Your task to perform on an android device: uninstall "Facebook" Image 0: 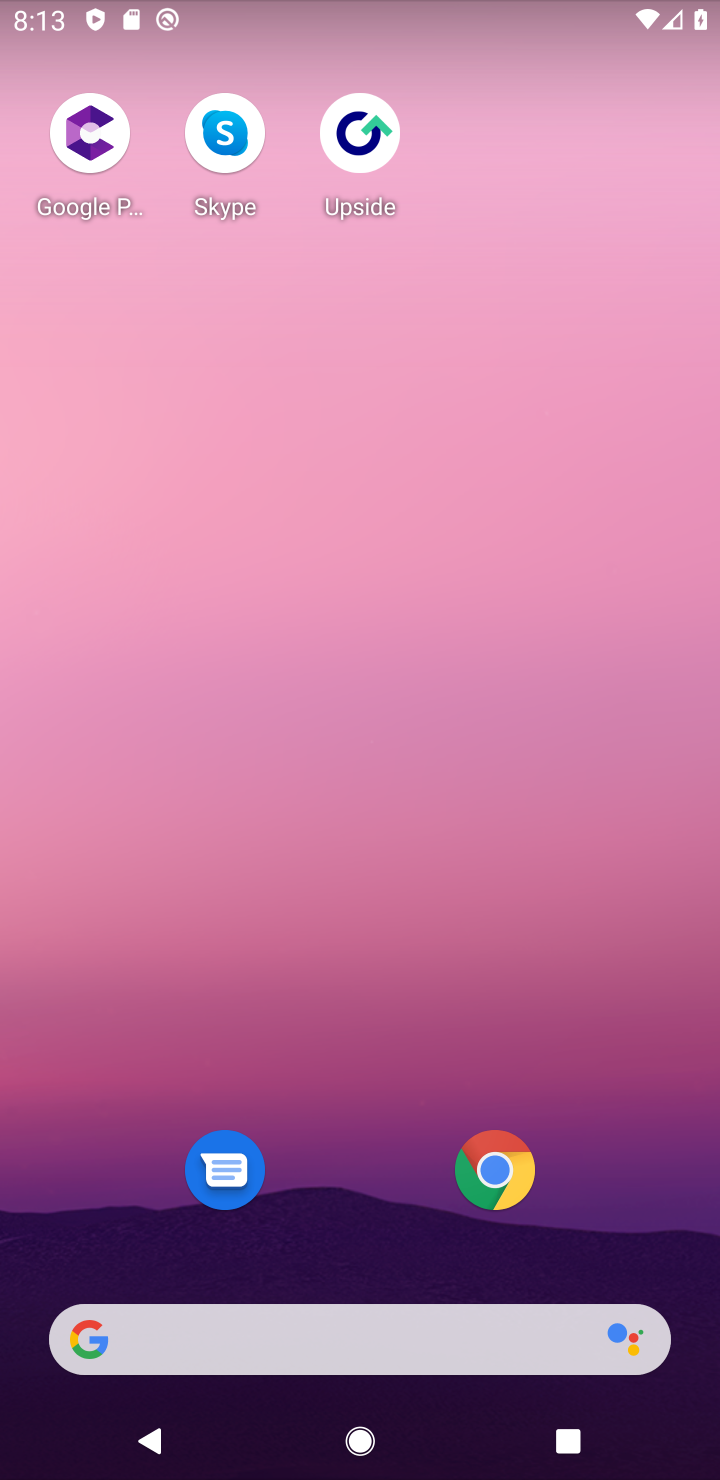
Step 0: drag from (457, 755) to (521, 77)
Your task to perform on an android device: uninstall "Facebook" Image 1: 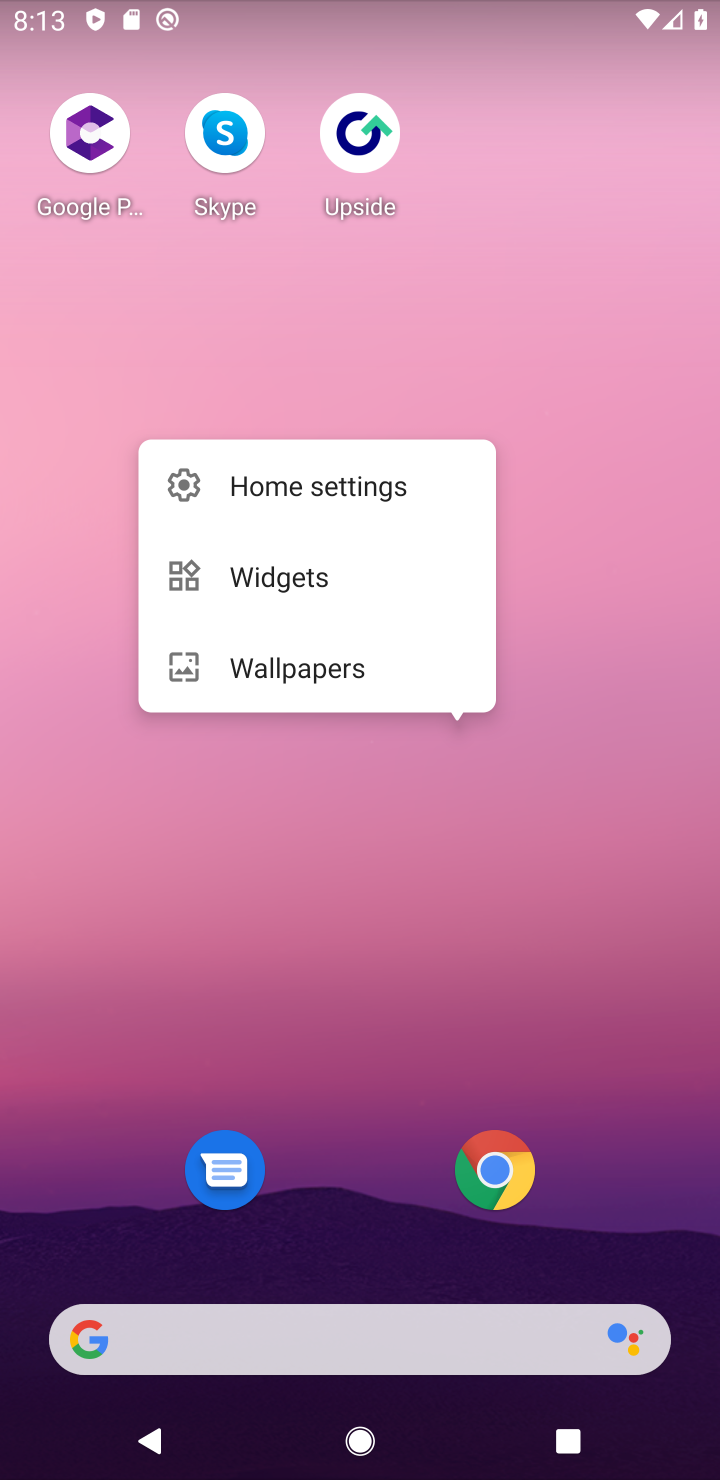
Step 1: click (297, 1007)
Your task to perform on an android device: uninstall "Facebook" Image 2: 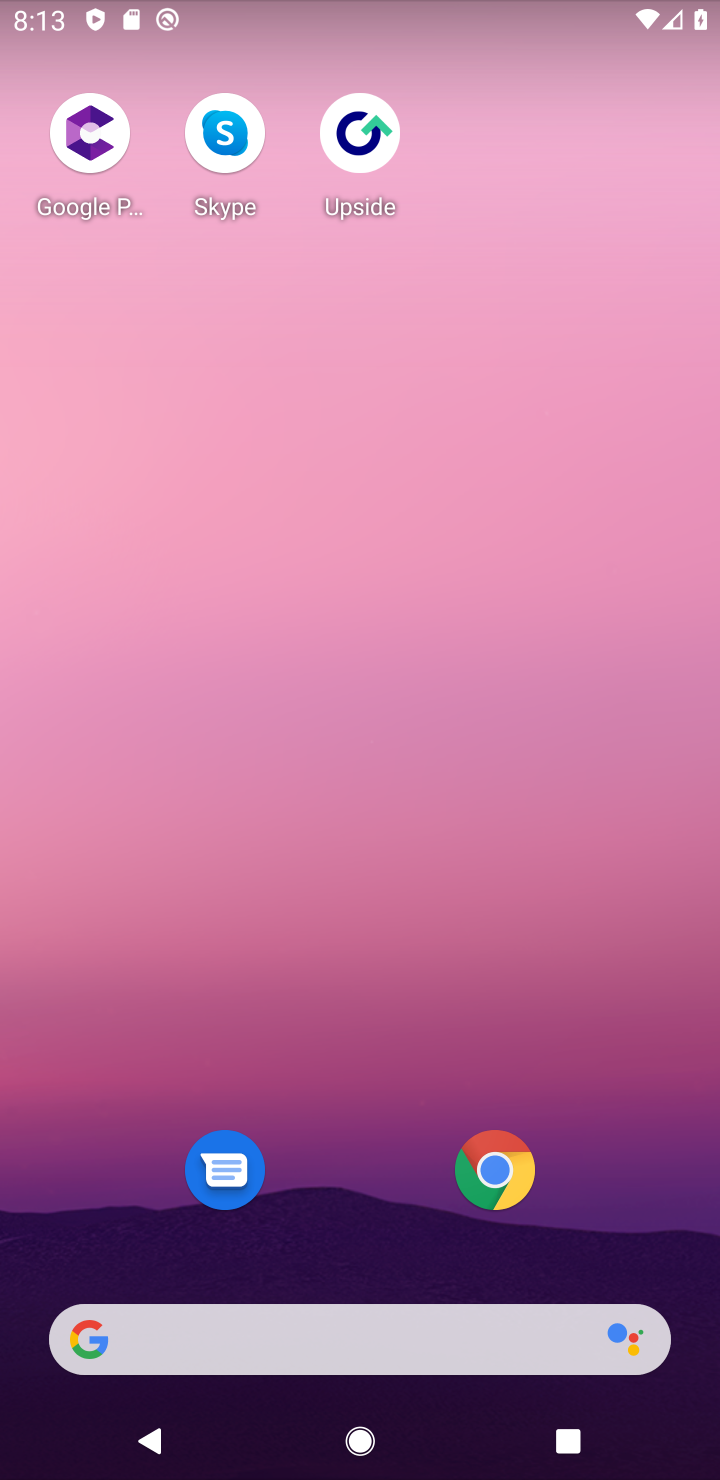
Step 2: drag from (430, 810) to (610, 1)
Your task to perform on an android device: uninstall "Facebook" Image 3: 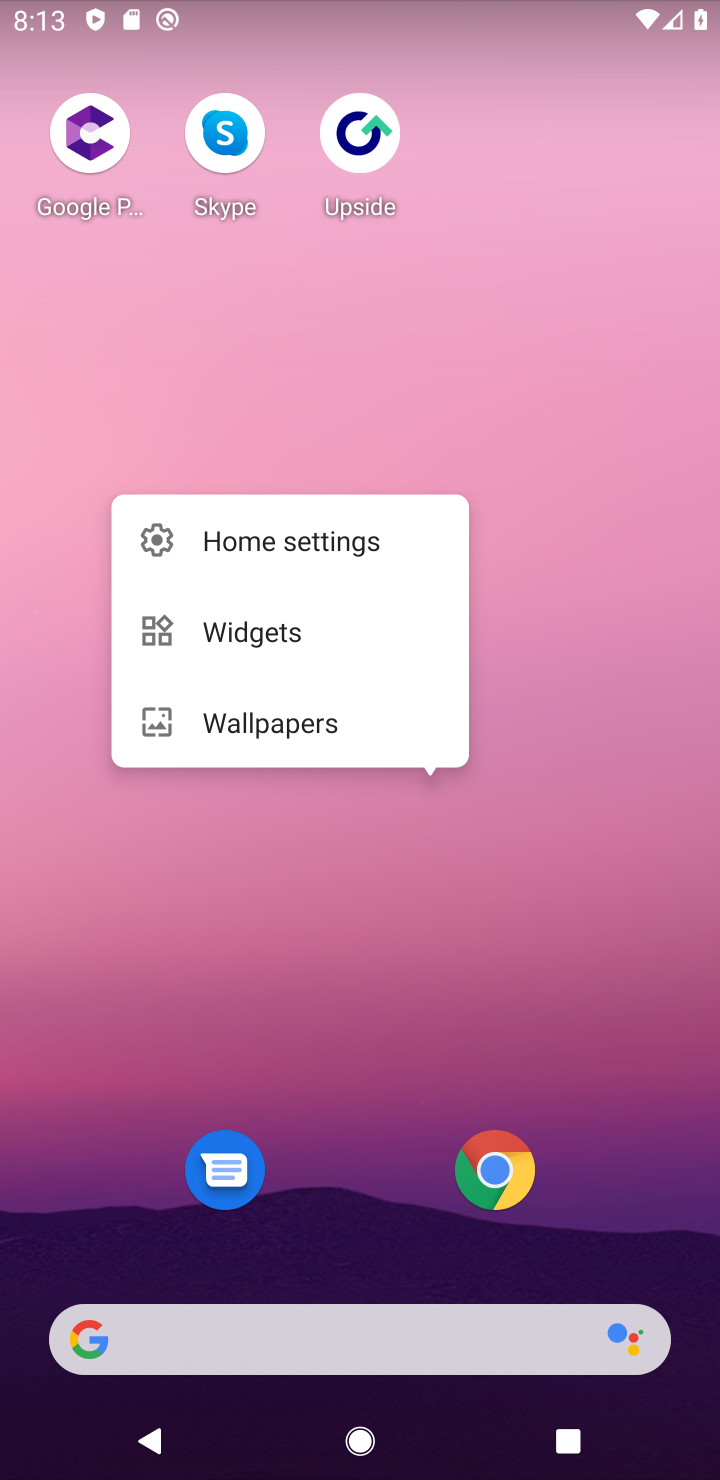
Step 3: click (421, 963)
Your task to perform on an android device: uninstall "Facebook" Image 4: 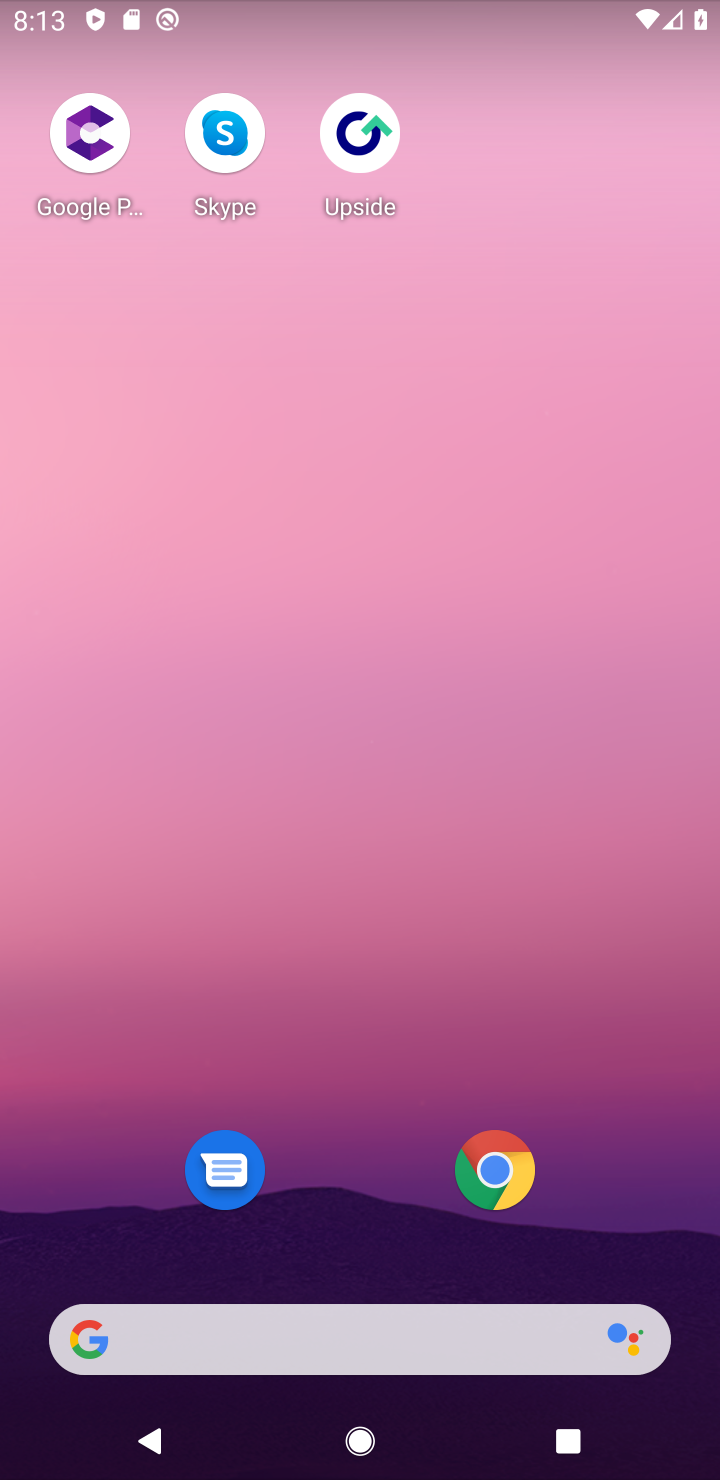
Step 4: drag from (492, 733) to (427, 49)
Your task to perform on an android device: uninstall "Facebook" Image 5: 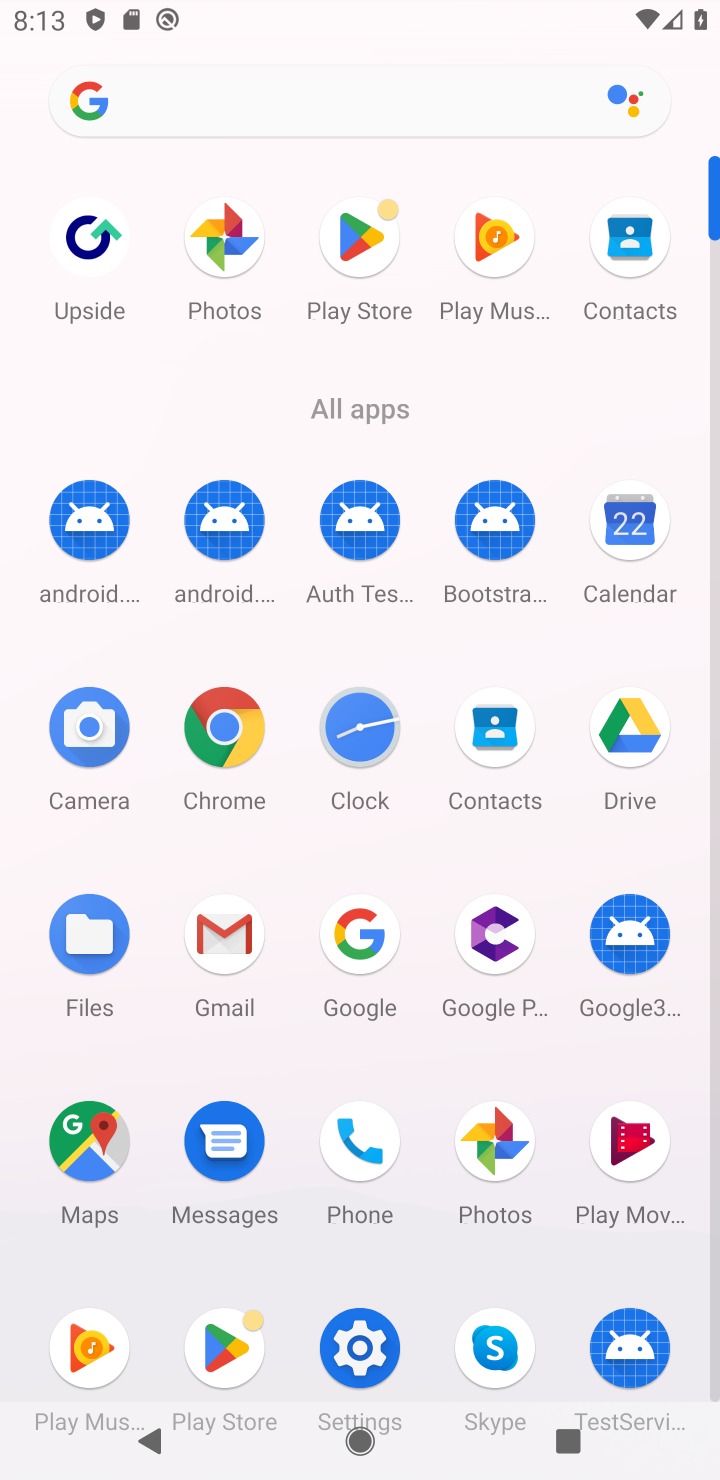
Step 5: click (391, 237)
Your task to perform on an android device: uninstall "Facebook" Image 6: 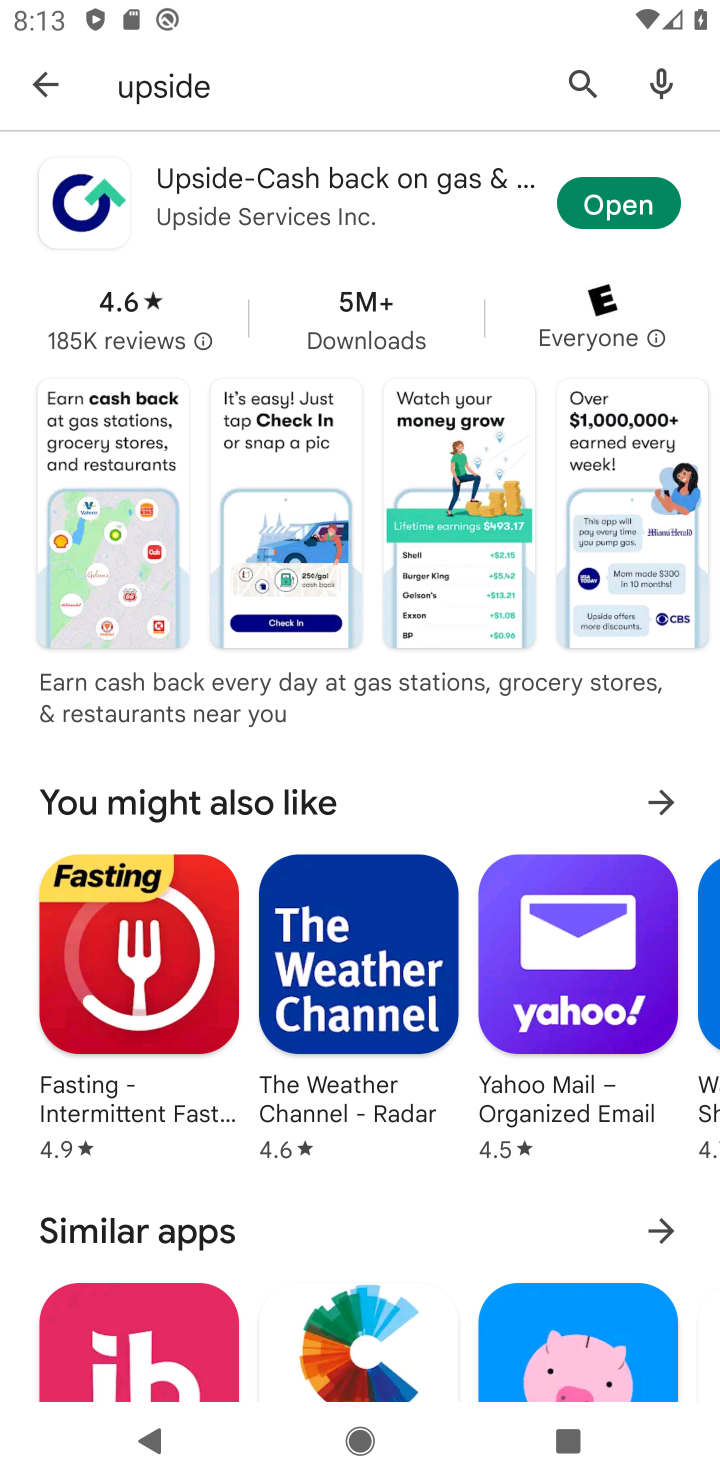
Step 6: click (579, 70)
Your task to perform on an android device: uninstall "Facebook" Image 7: 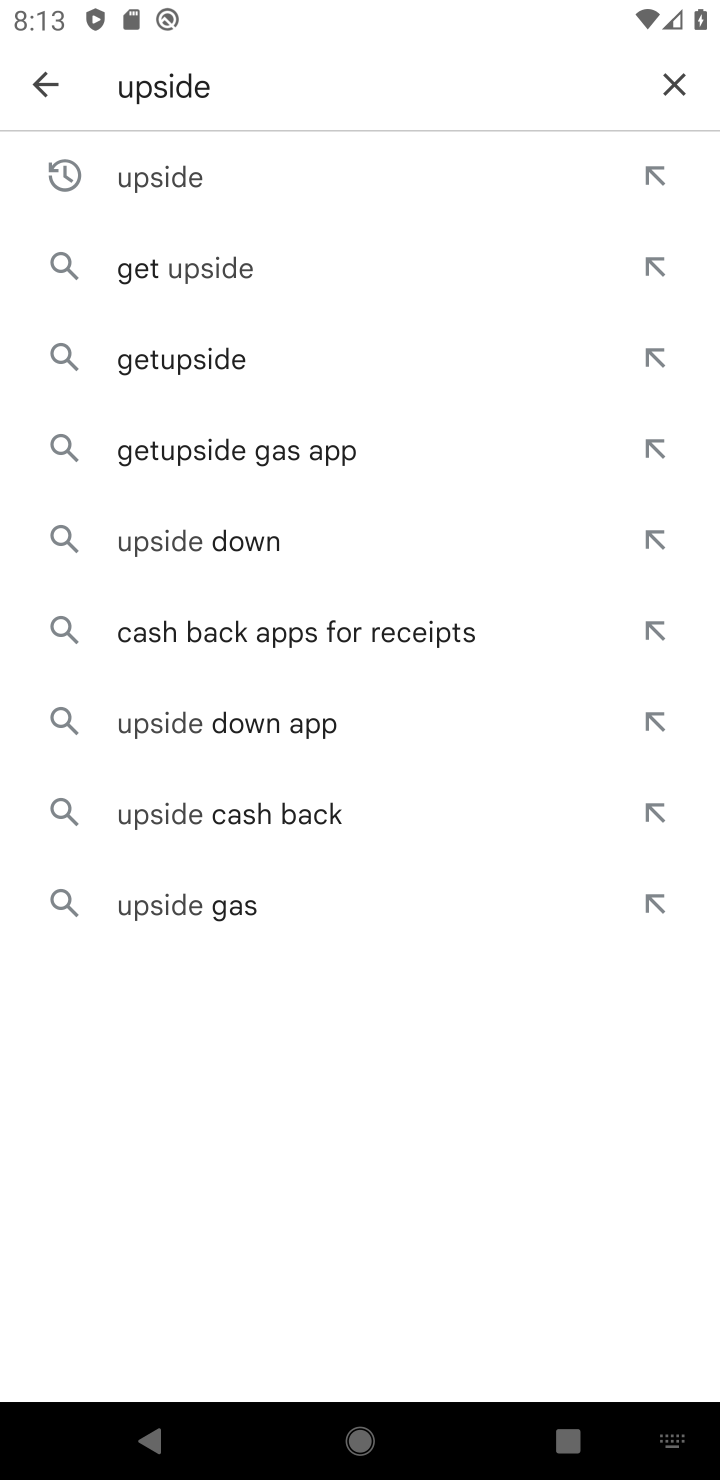
Step 7: click (675, 70)
Your task to perform on an android device: uninstall "Facebook" Image 8: 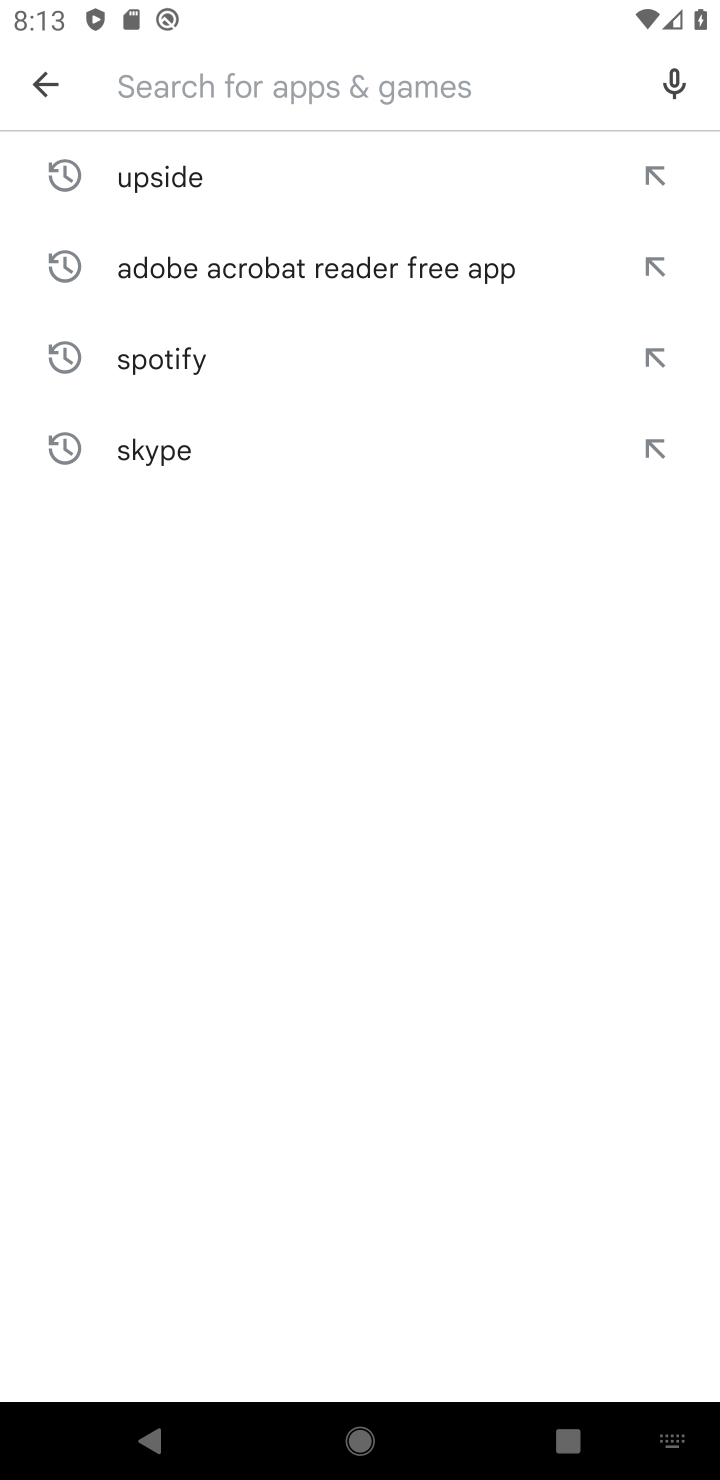
Step 8: click (286, 95)
Your task to perform on an android device: uninstall "Facebook" Image 9: 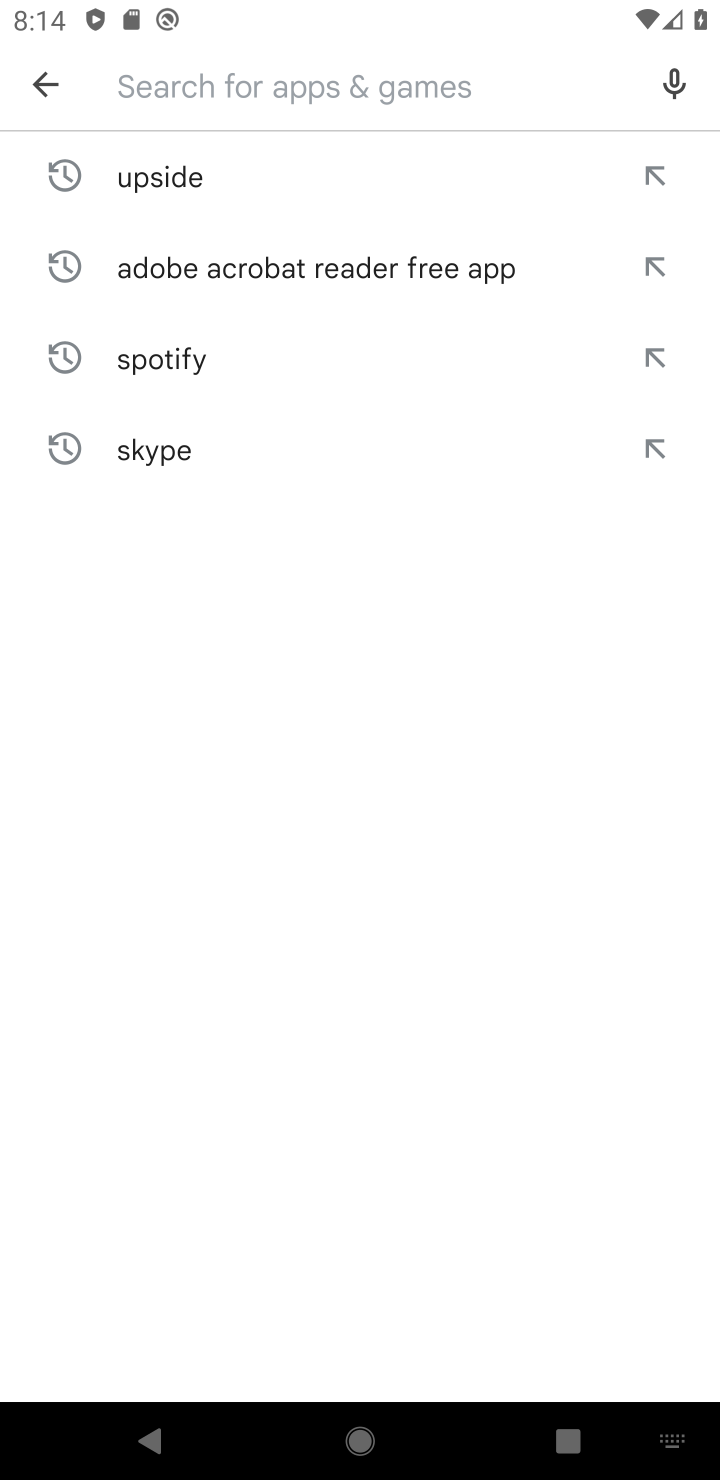
Step 9: type "facebook"
Your task to perform on an android device: uninstall "Facebook" Image 10: 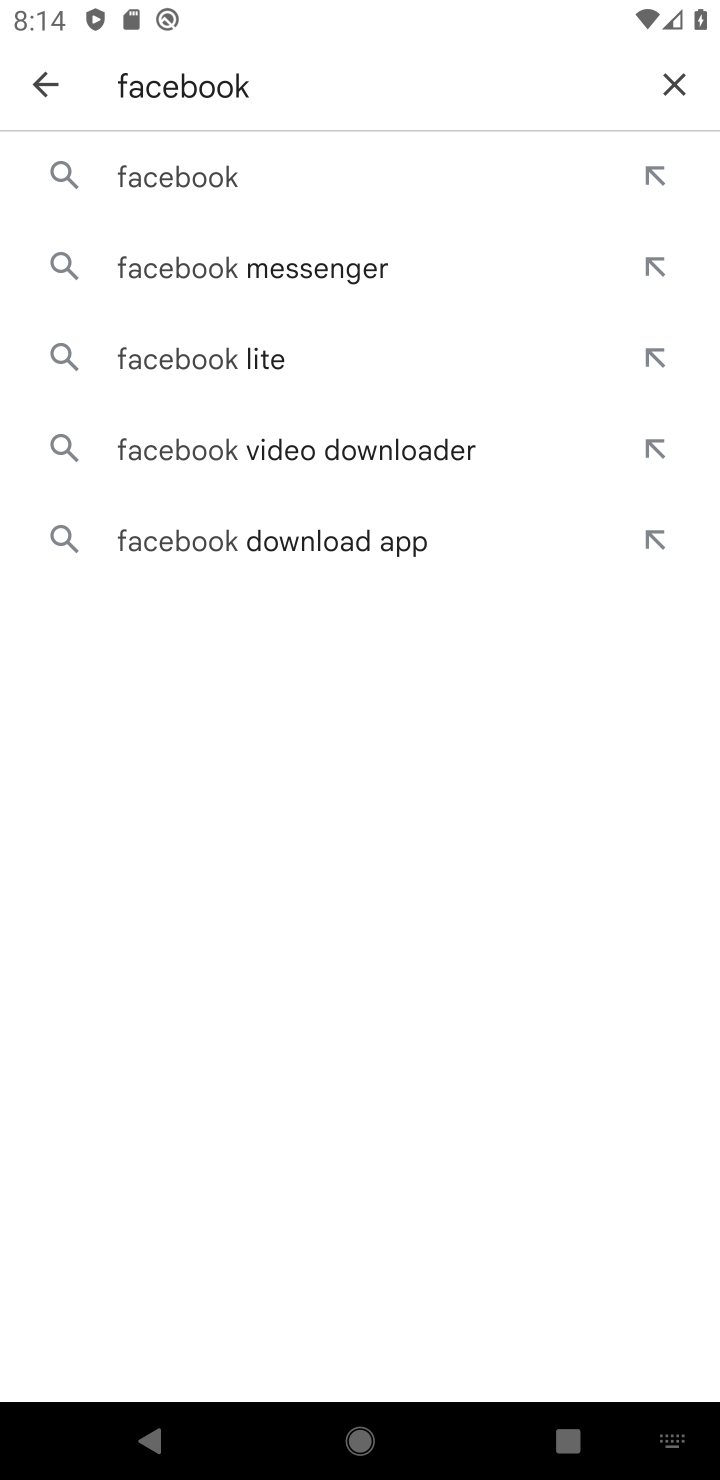
Step 10: click (240, 161)
Your task to perform on an android device: uninstall "Facebook" Image 11: 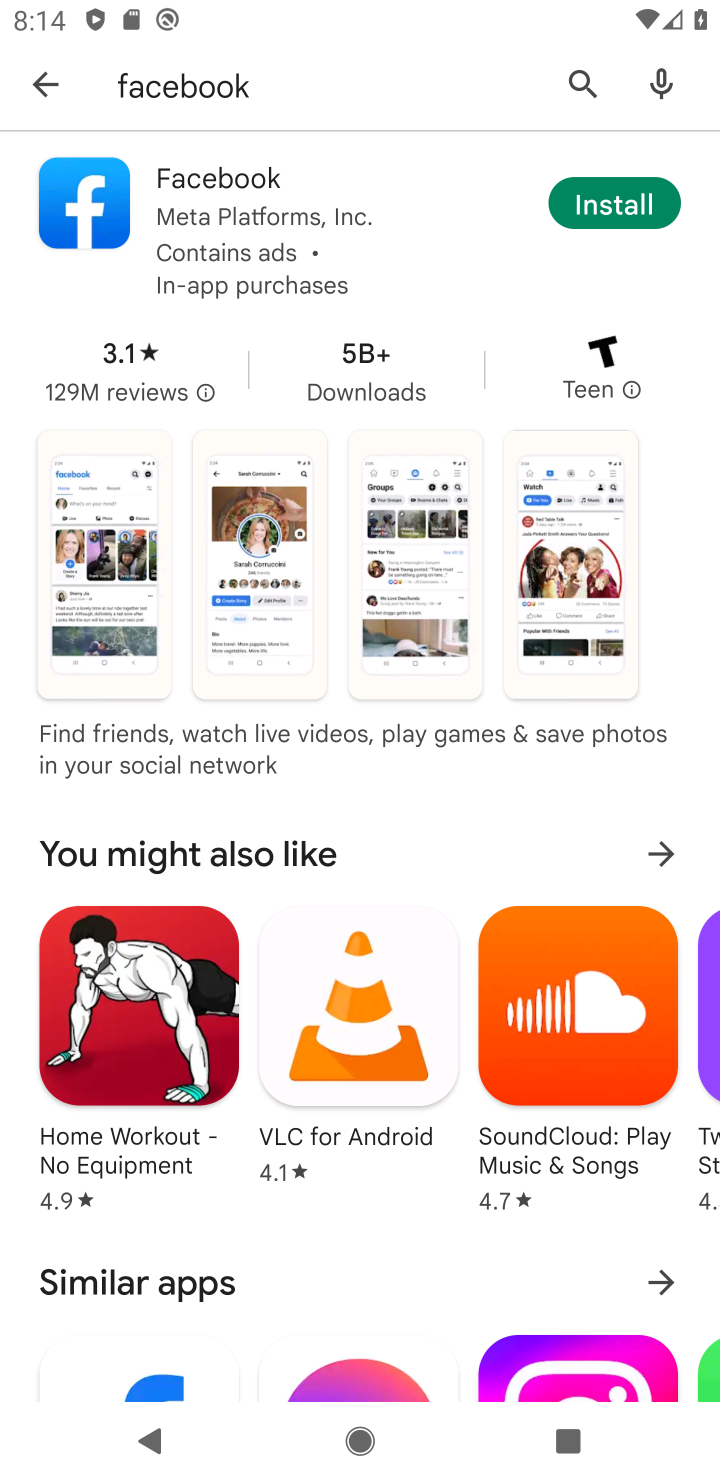
Step 11: click (241, 203)
Your task to perform on an android device: uninstall "Facebook" Image 12: 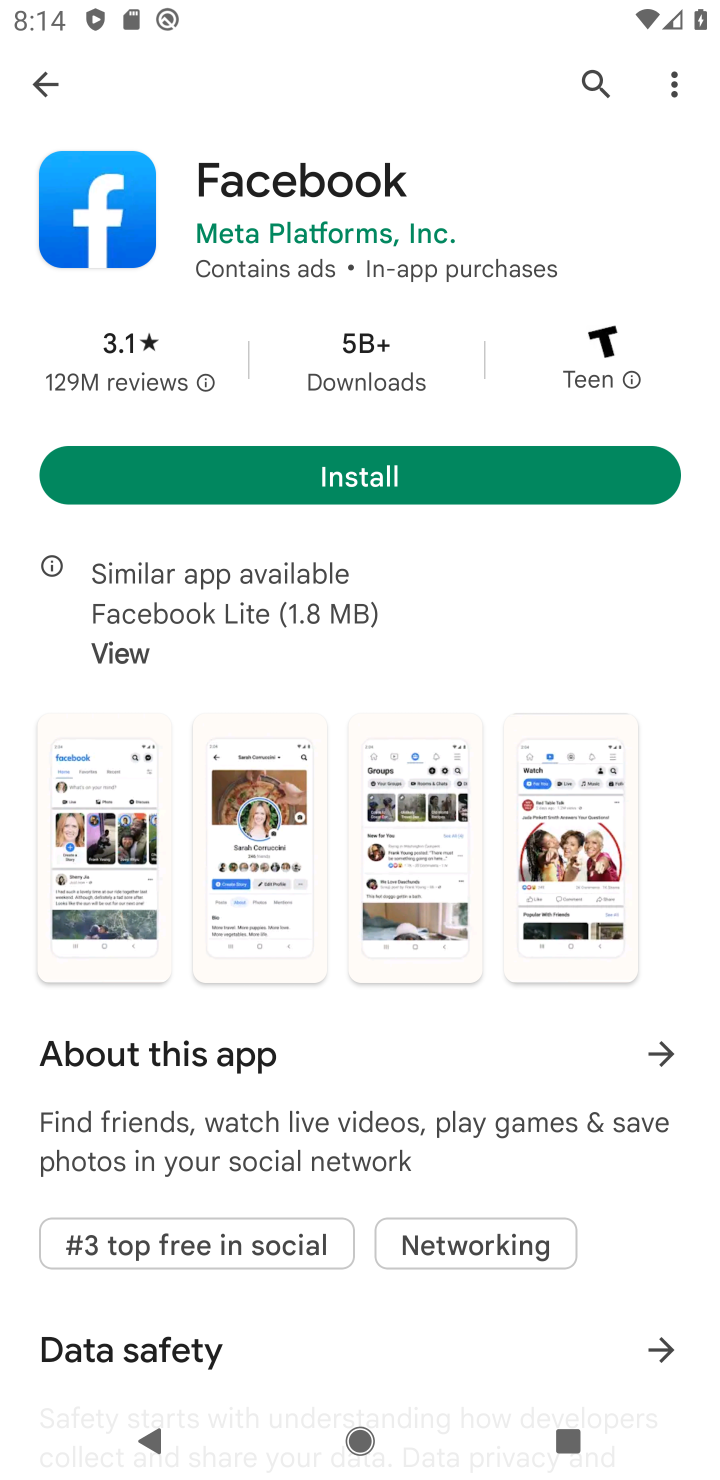
Step 12: task complete